Your task to perform on an android device: open sync settings in chrome Image 0: 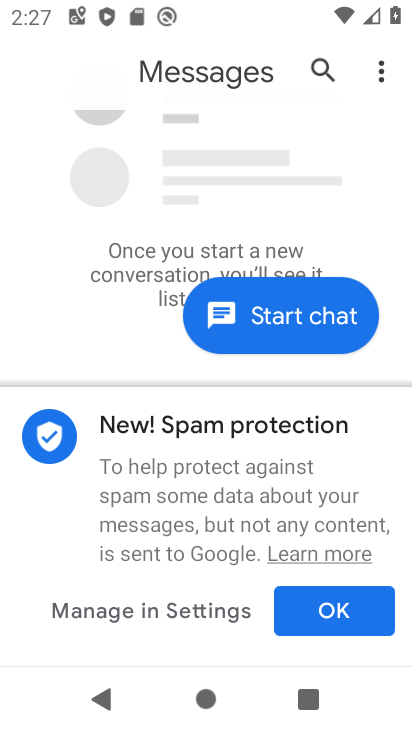
Step 0: press home button
Your task to perform on an android device: open sync settings in chrome Image 1: 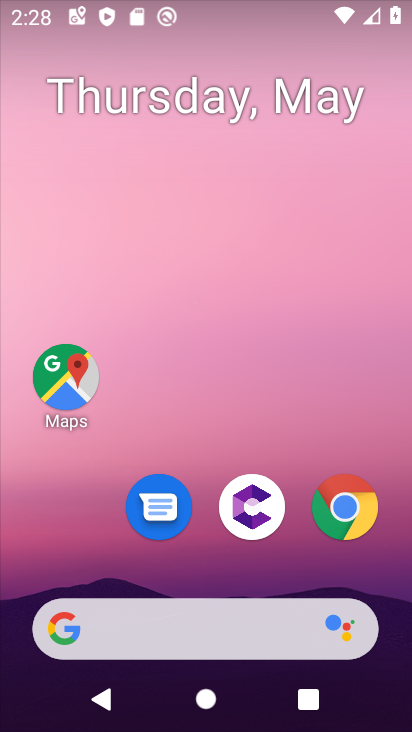
Step 1: click (340, 519)
Your task to perform on an android device: open sync settings in chrome Image 2: 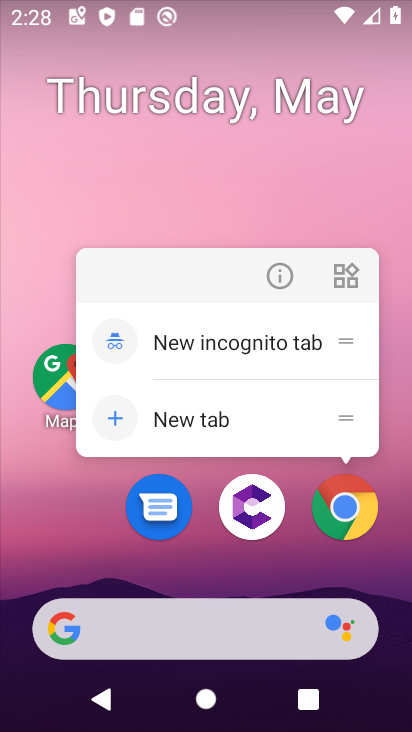
Step 2: click (360, 526)
Your task to perform on an android device: open sync settings in chrome Image 3: 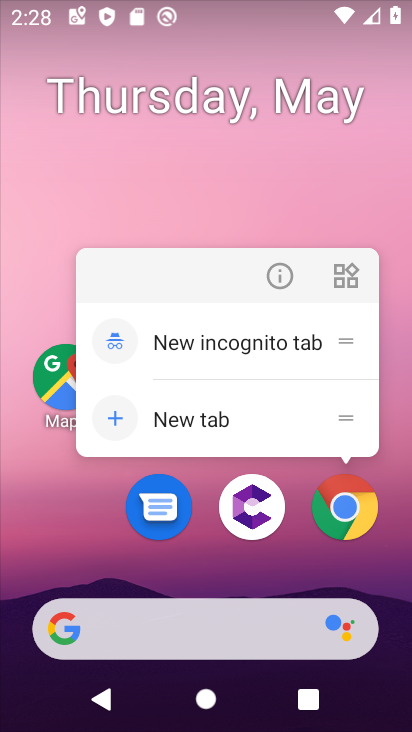
Step 3: click (360, 522)
Your task to perform on an android device: open sync settings in chrome Image 4: 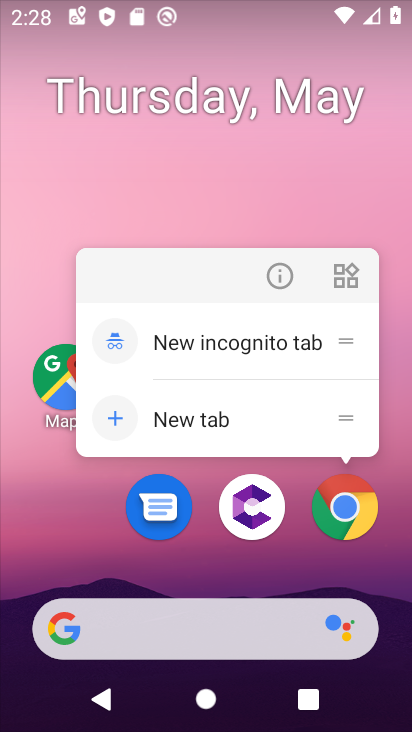
Step 4: click (338, 515)
Your task to perform on an android device: open sync settings in chrome Image 5: 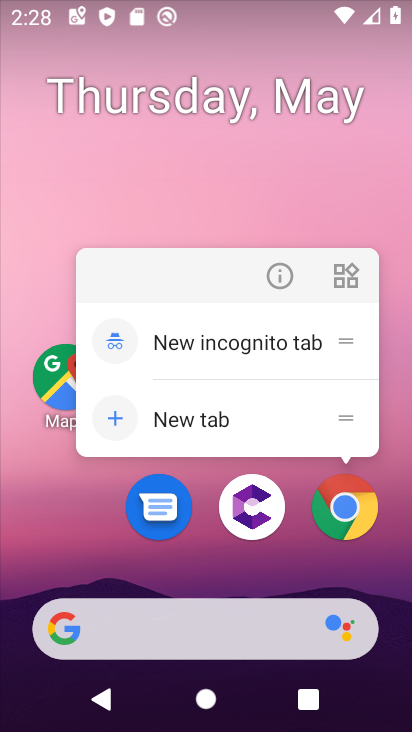
Step 5: click (343, 518)
Your task to perform on an android device: open sync settings in chrome Image 6: 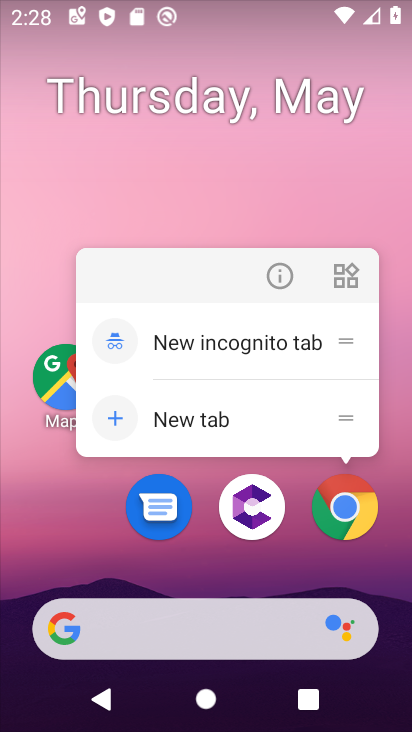
Step 6: click (333, 504)
Your task to perform on an android device: open sync settings in chrome Image 7: 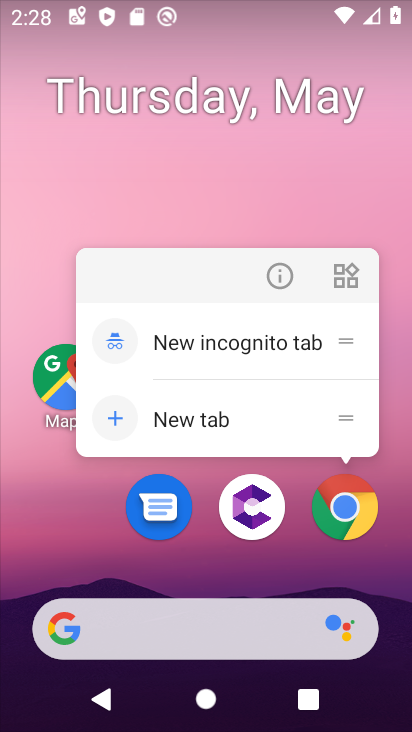
Step 7: click (340, 512)
Your task to perform on an android device: open sync settings in chrome Image 8: 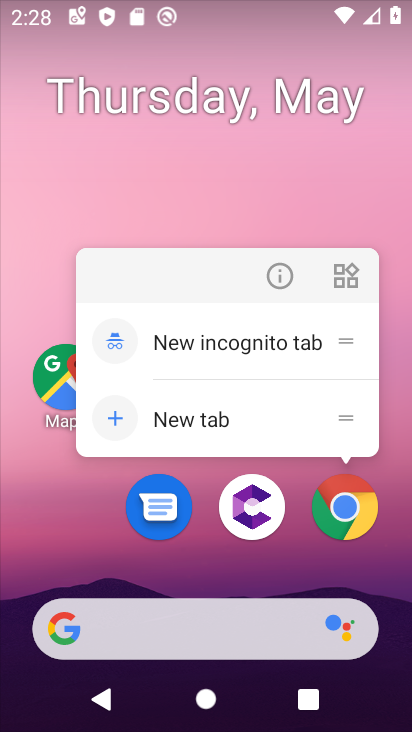
Step 8: click (342, 511)
Your task to perform on an android device: open sync settings in chrome Image 9: 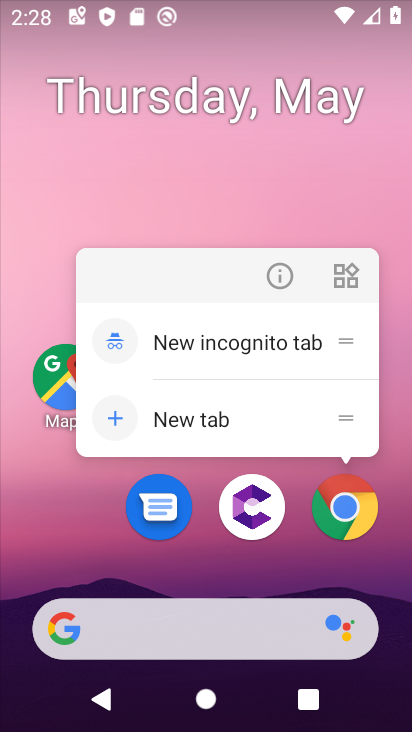
Step 9: click (347, 510)
Your task to perform on an android device: open sync settings in chrome Image 10: 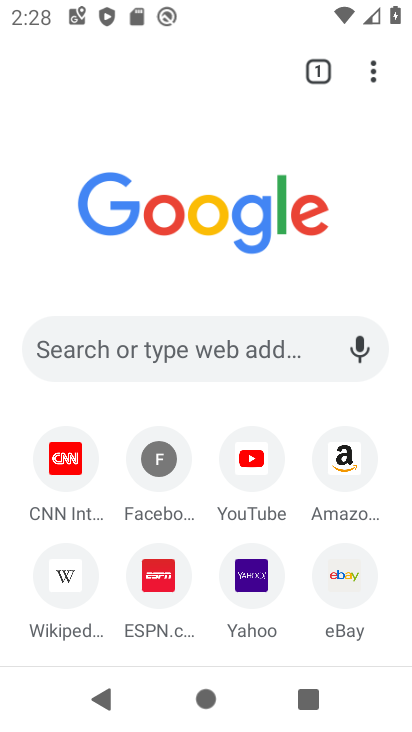
Step 10: drag from (375, 69) to (297, 506)
Your task to perform on an android device: open sync settings in chrome Image 11: 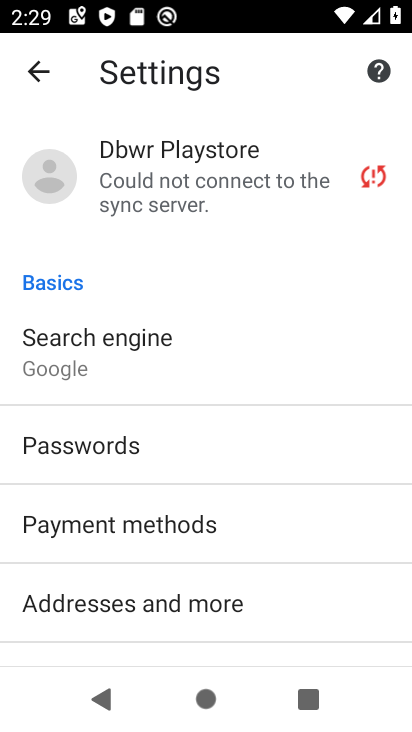
Step 11: click (200, 178)
Your task to perform on an android device: open sync settings in chrome Image 12: 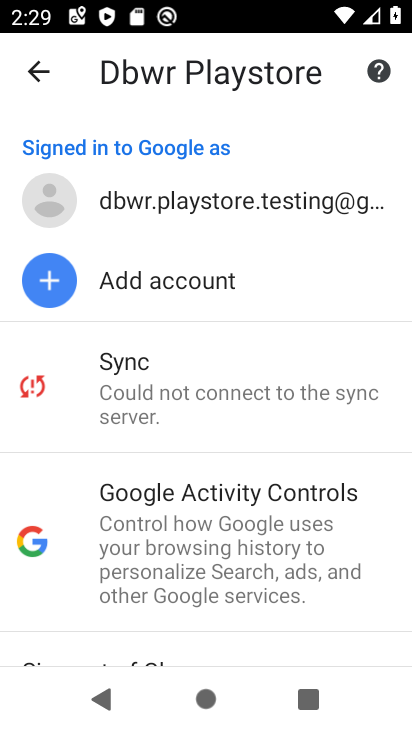
Step 12: click (214, 391)
Your task to perform on an android device: open sync settings in chrome Image 13: 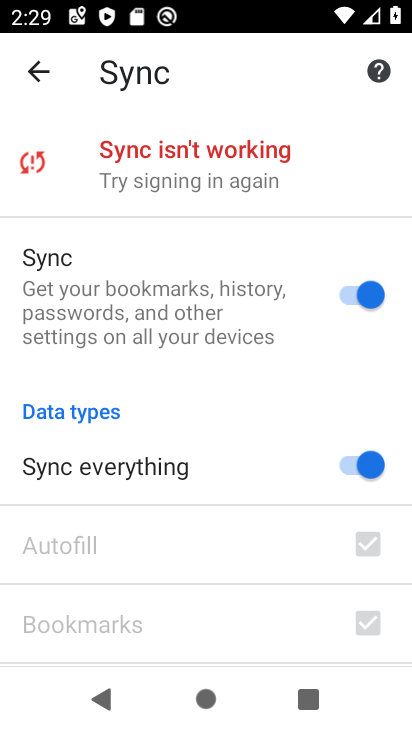
Step 13: task complete